Your task to perform on an android device: open chrome privacy settings Image 0: 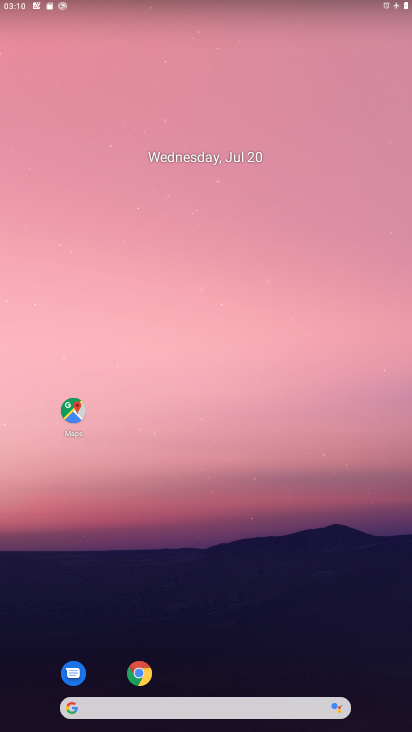
Step 0: click (139, 664)
Your task to perform on an android device: open chrome privacy settings Image 1: 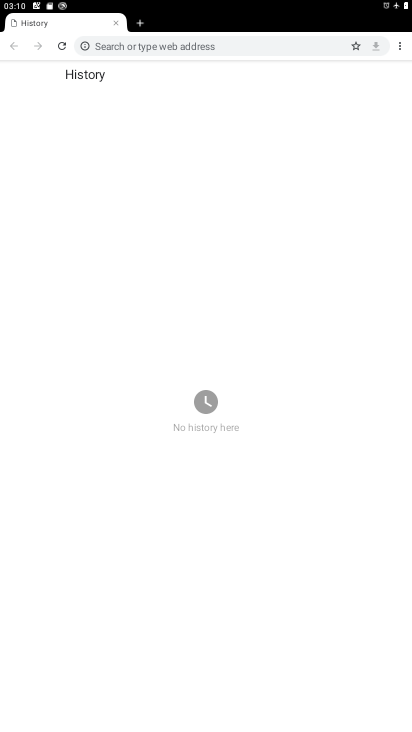
Step 1: click (400, 45)
Your task to perform on an android device: open chrome privacy settings Image 2: 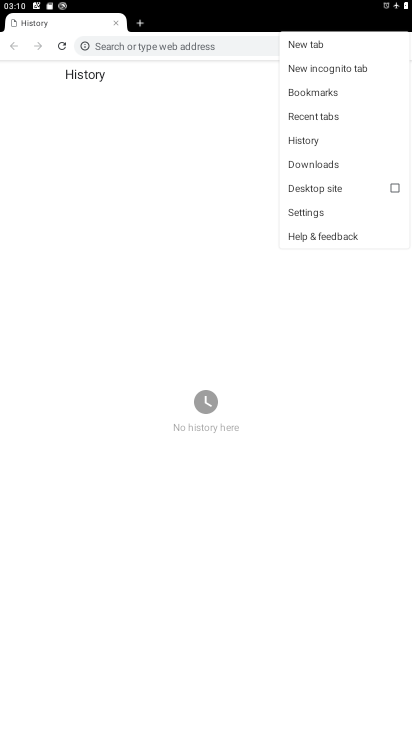
Step 2: click (313, 215)
Your task to perform on an android device: open chrome privacy settings Image 3: 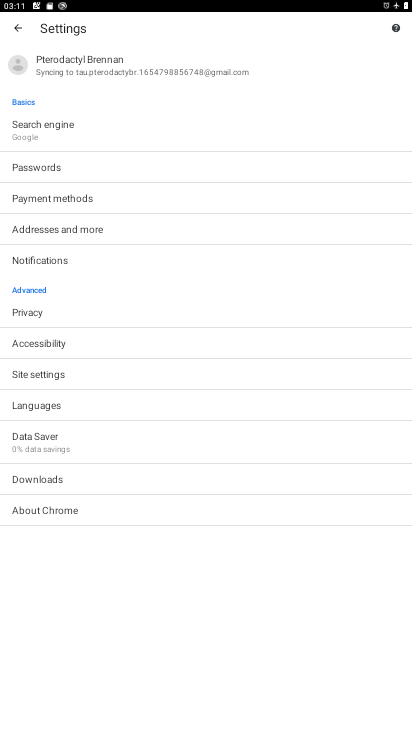
Step 3: click (35, 309)
Your task to perform on an android device: open chrome privacy settings Image 4: 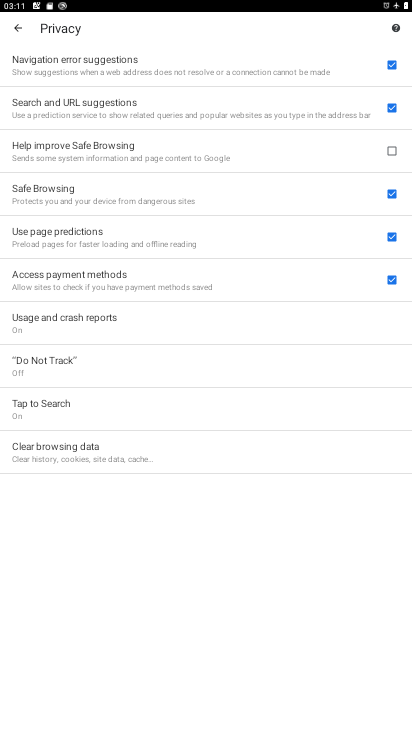
Step 4: task complete